Your task to perform on an android device: Open Chrome and go to the settings page Image 0: 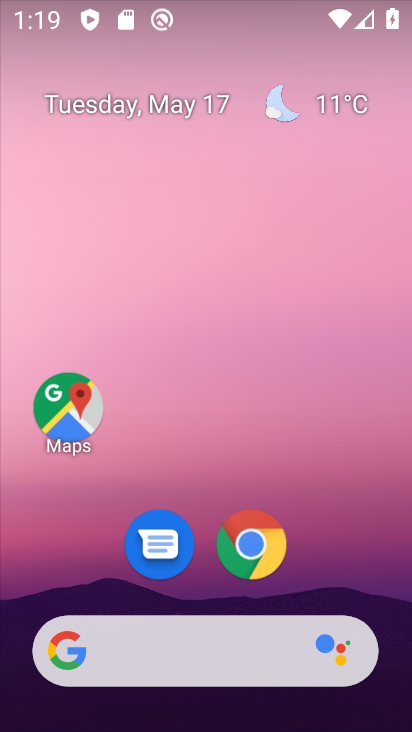
Step 0: press home button
Your task to perform on an android device: Open Chrome and go to the settings page Image 1: 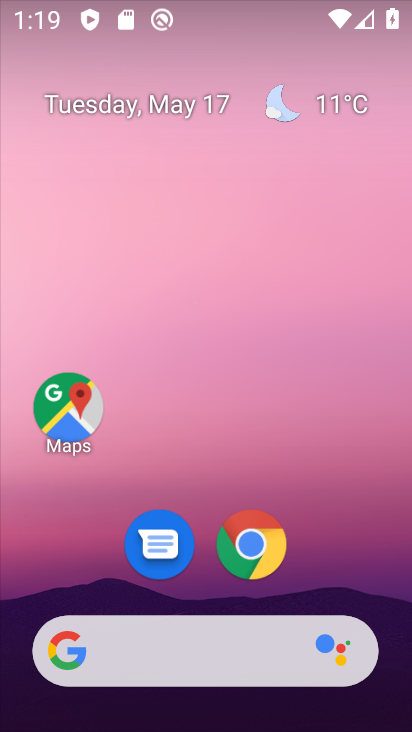
Step 1: click (278, 538)
Your task to perform on an android device: Open Chrome and go to the settings page Image 2: 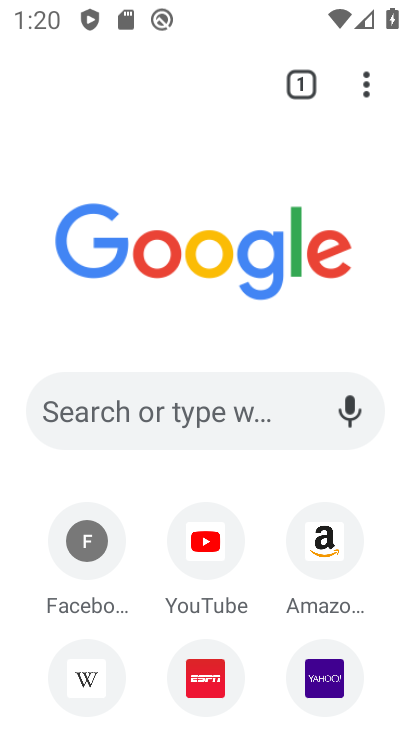
Step 2: task complete